Your task to perform on an android device: star an email in the gmail app Image 0: 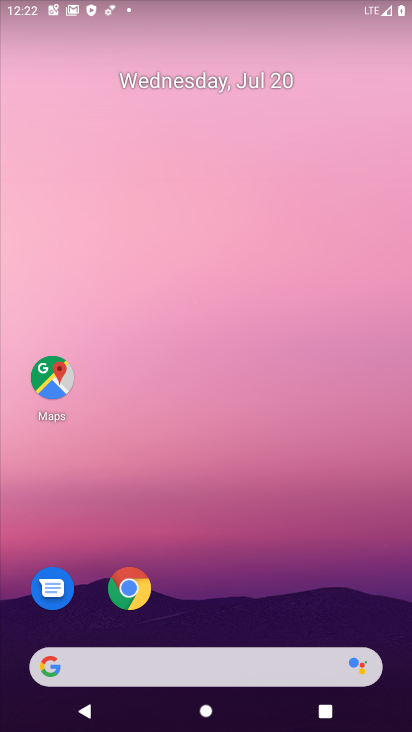
Step 0: drag from (390, 622) to (309, 201)
Your task to perform on an android device: star an email in the gmail app Image 1: 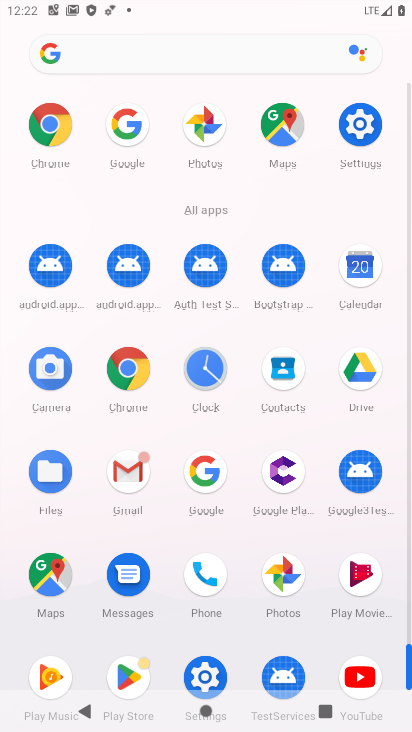
Step 1: click (114, 474)
Your task to perform on an android device: star an email in the gmail app Image 2: 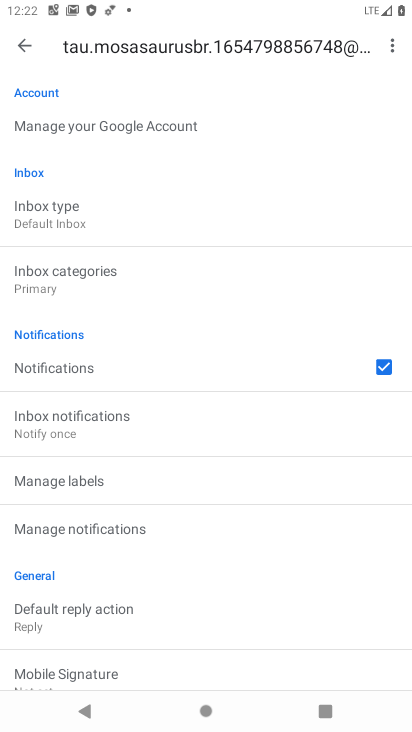
Step 2: click (19, 36)
Your task to perform on an android device: star an email in the gmail app Image 3: 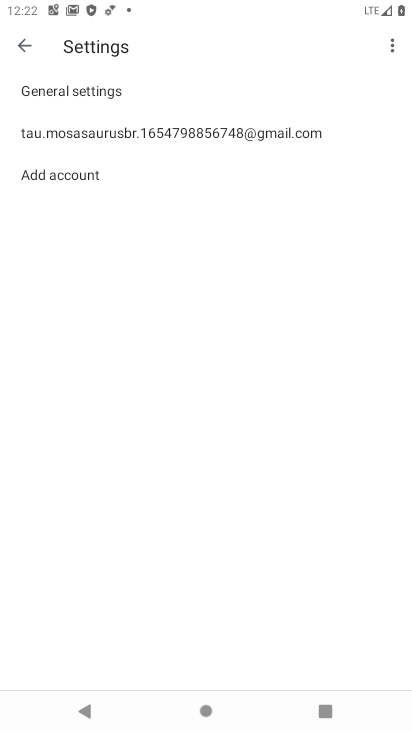
Step 3: click (39, 132)
Your task to perform on an android device: star an email in the gmail app Image 4: 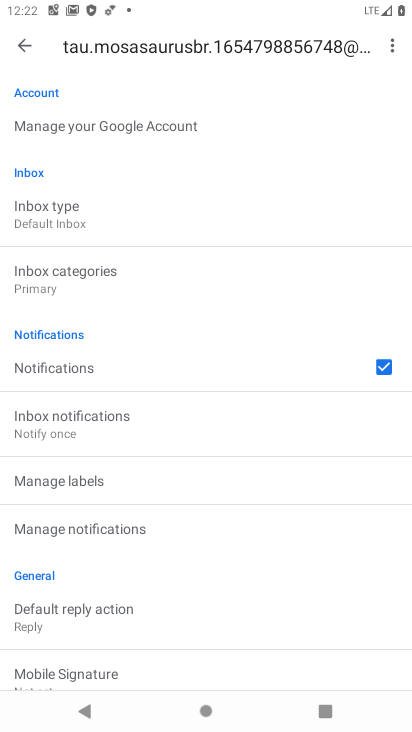
Step 4: click (25, 45)
Your task to perform on an android device: star an email in the gmail app Image 5: 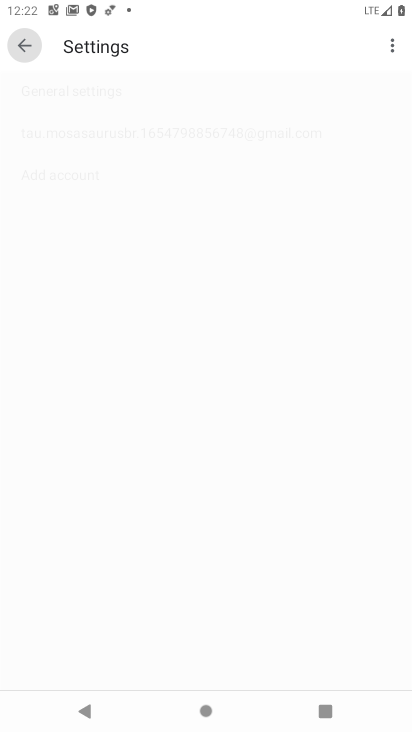
Step 5: click (25, 45)
Your task to perform on an android device: star an email in the gmail app Image 6: 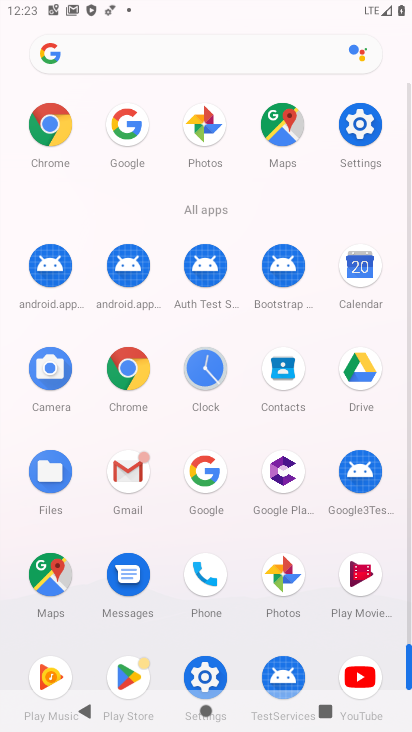
Step 6: click (127, 474)
Your task to perform on an android device: star an email in the gmail app Image 7: 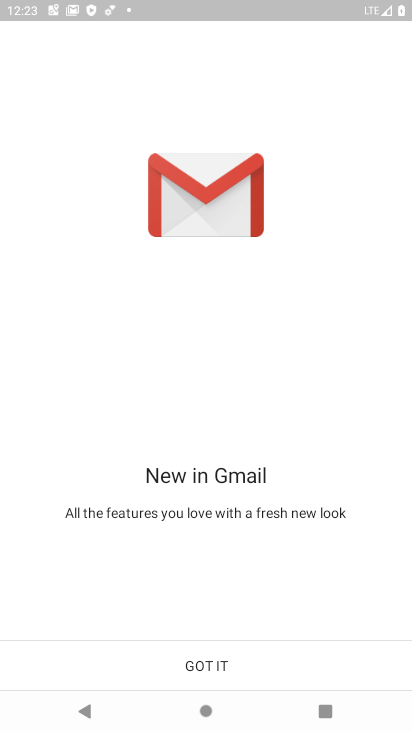
Step 7: click (198, 662)
Your task to perform on an android device: star an email in the gmail app Image 8: 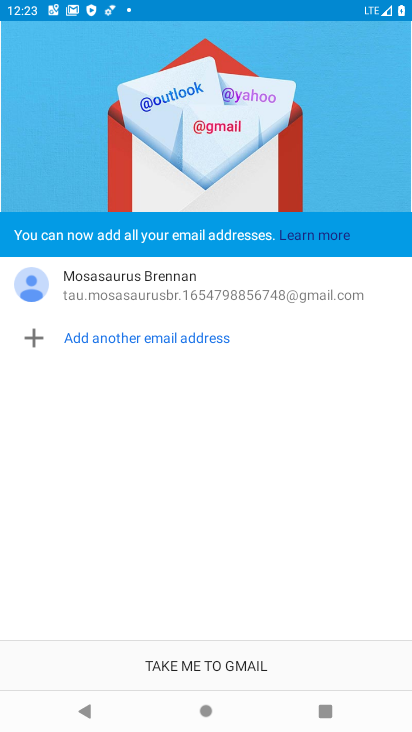
Step 8: click (198, 660)
Your task to perform on an android device: star an email in the gmail app Image 9: 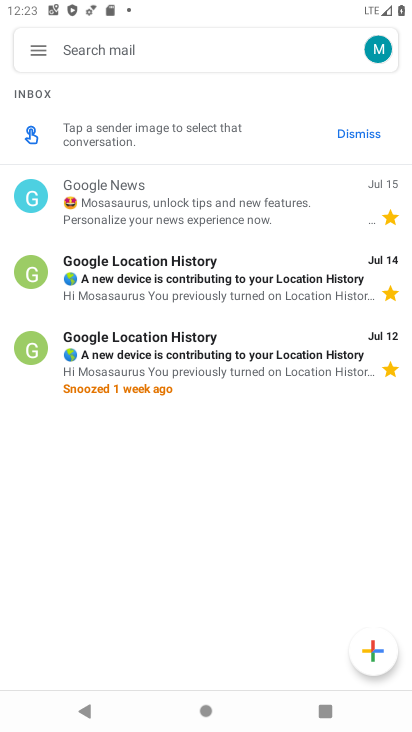
Step 9: task complete